Your task to perform on an android device: Open calendar and show me the second week of next month Image 0: 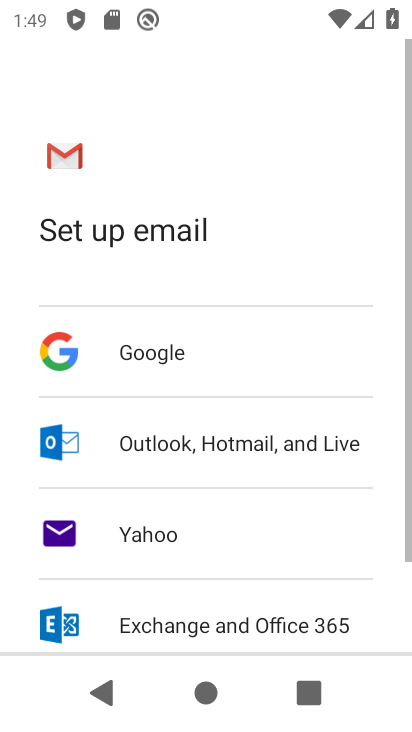
Step 0: press home button
Your task to perform on an android device: Open calendar and show me the second week of next month Image 1: 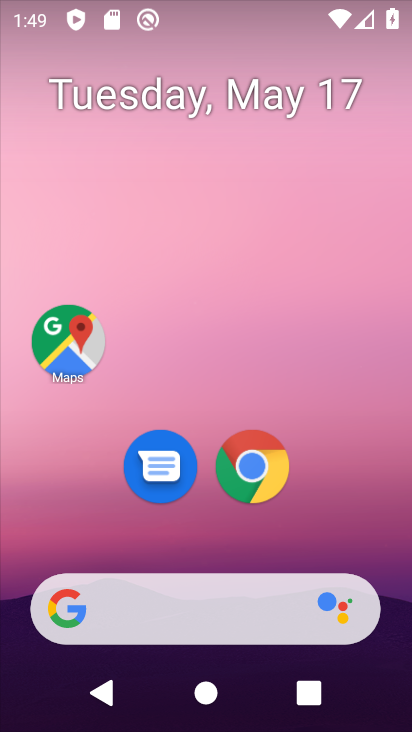
Step 1: drag from (98, 534) to (261, 57)
Your task to perform on an android device: Open calendar and show me the second week of next month Image 2: 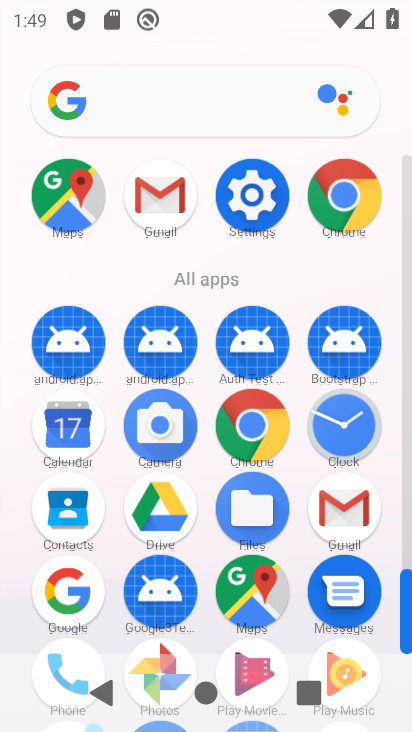
Step 2: drag from (168, 594) to (190, 437)
Your task to perform on an android device: Open calendar and show me the second week of next month Image 3: 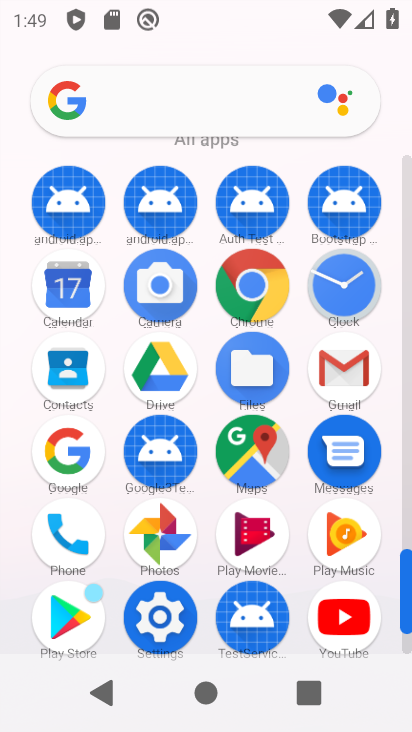
Step 3: click (81, 300)
Your task to perform on an android device: Open calendar and show me the second week of next month Image 4: 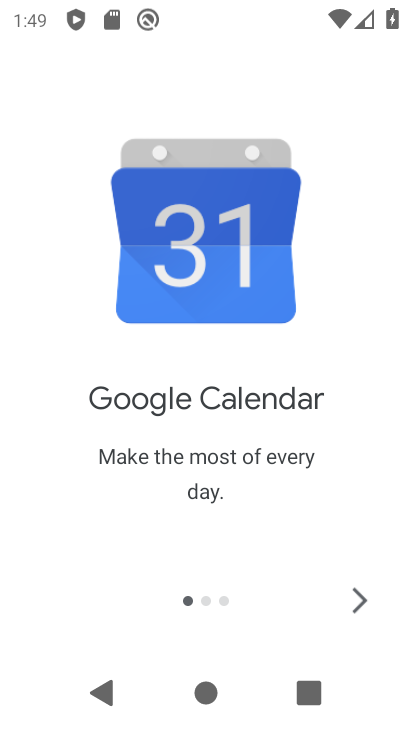
Step 4: click (360, 608)
Your task to perform on an android device: Open calendar and show me the second week of next month Image 5: 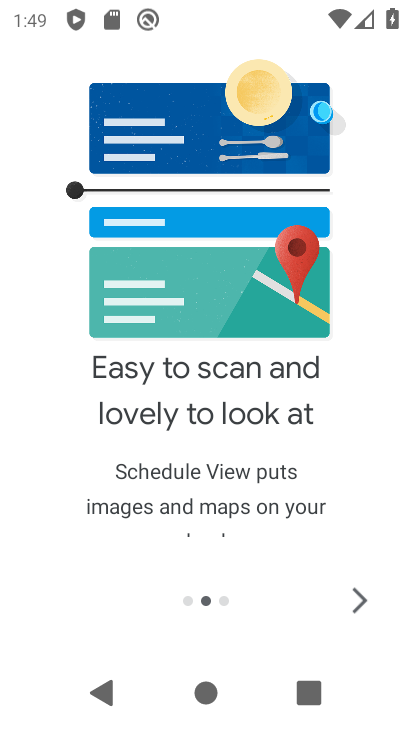
Step 5: click (359, 608)
Your task to perform on an android device: Open calendar and show me the second week of next month Image 6: 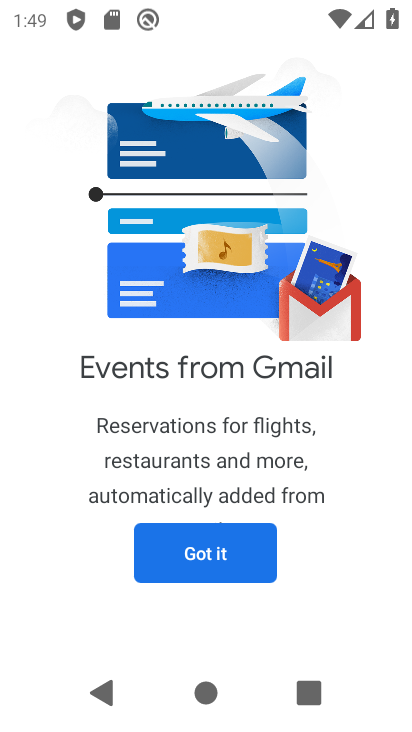
Step 6: click (225, 559)
Your task to perform on an android device: Open calendar and show me the second week of next month Image 7: 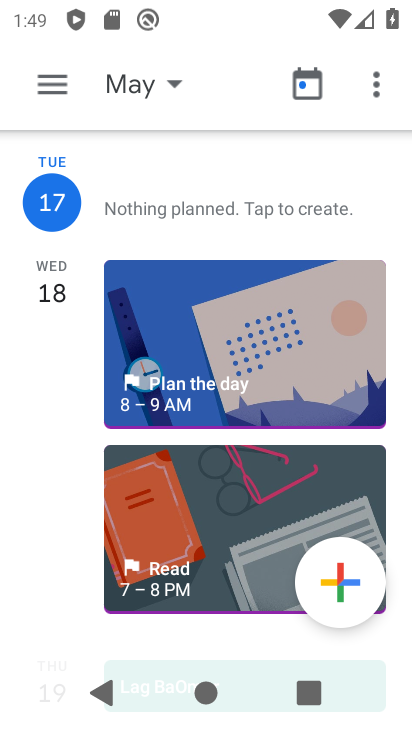
Step 7: click (151, 108)
Your task to perform on an android device: Open calendar and show me the second week of next month Image 8: 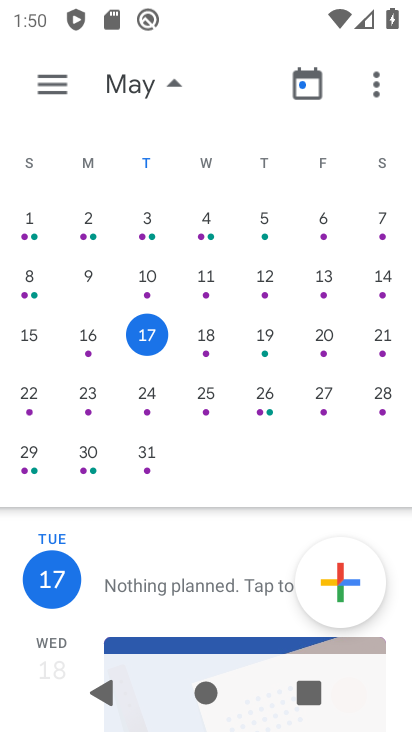
Step 8: drag from (392, 425) to (16, 391)
Your task to perform on an android device: Open calendar and show me the second week of next month Image 9: 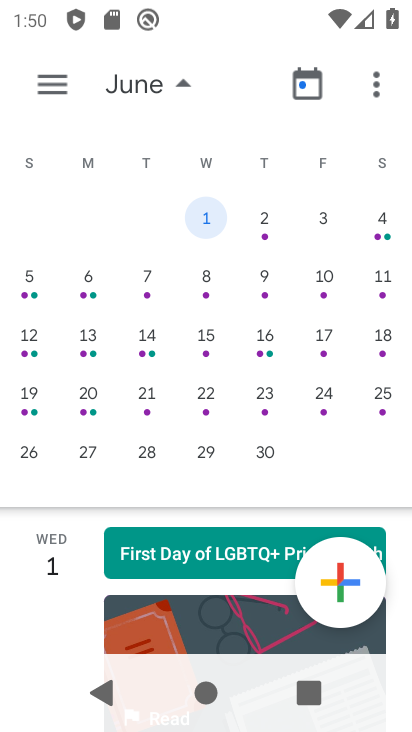
Step 9: click (36, 336)
Your task to perform on an android device: Open calendar and show me the second week of next month Image 10: 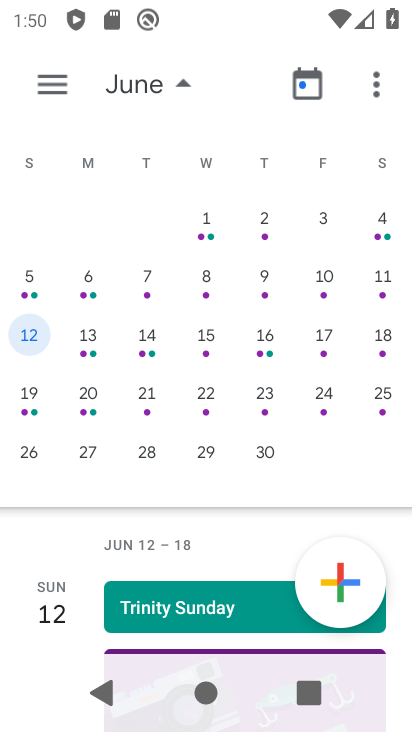
Step 10: click (62, 87)
Your task to perform on an android device: Open calendar and show me the second week of next month Image 11: 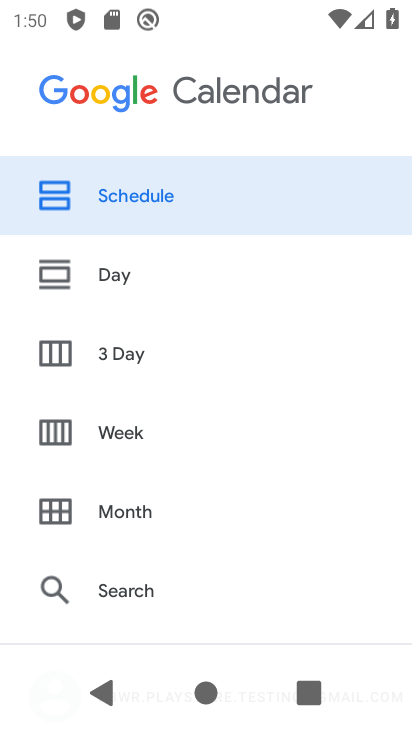
Step 11: click (175, 445)
Your task to perform on an android device: Open calendar and show me the second week of next month Image 12: 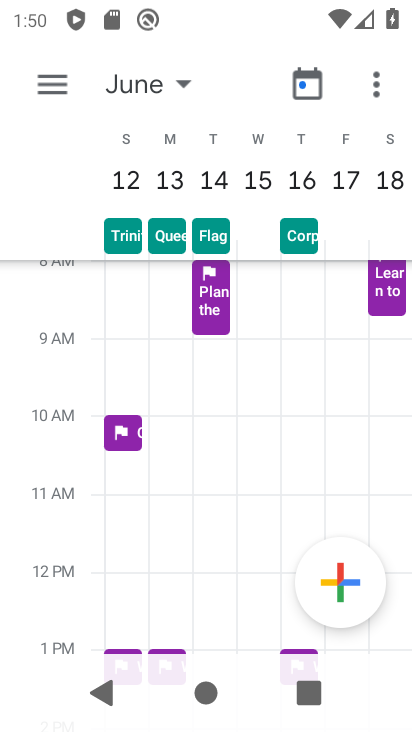
Step 12: task complete